Your task to perform on an android device: toggle wifi Image 0: 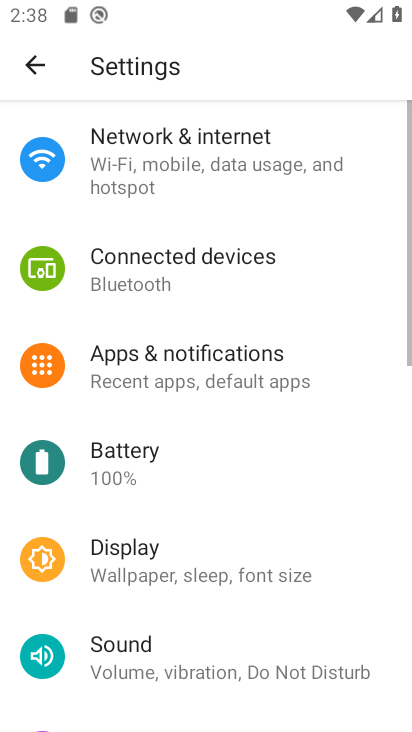
Step 0: click (172, 161)
Your task to perform on an android device: toggle wifi Image 1: 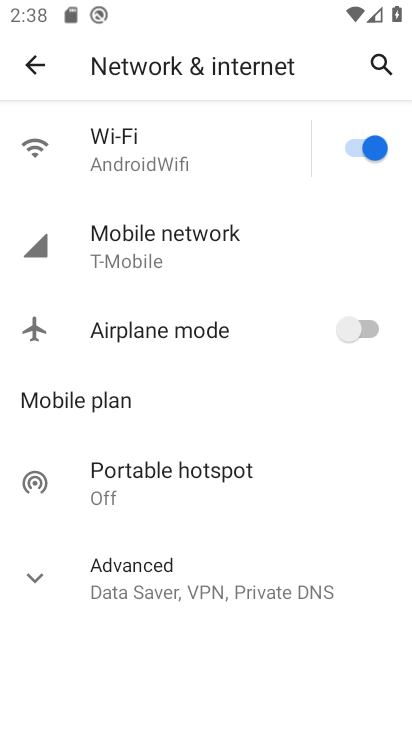
Step 1: click (365, 150)
Your task to perform on an android device: toggle wifi Image 2: 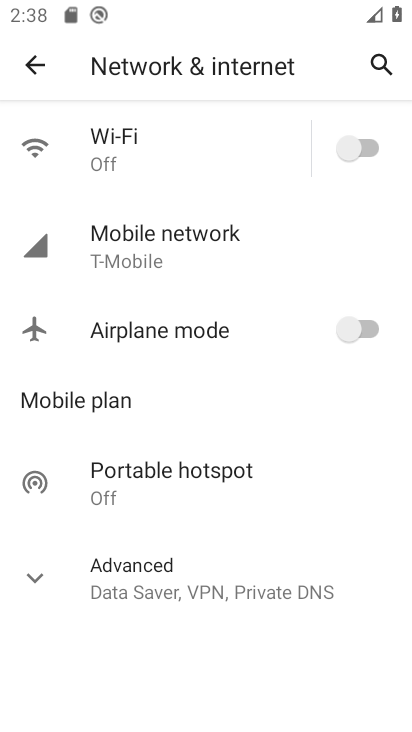
Step 2: task complete